Your task to perform on an android device: change notifications settings Image 0: 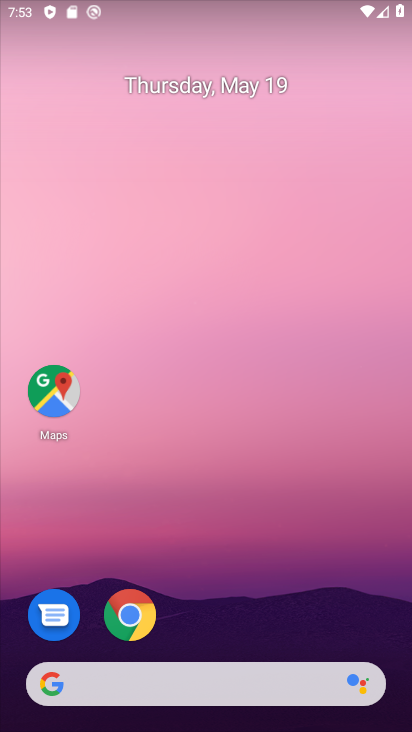
Step 0: drag from (268, 616) to (209, 134)
Your task to perform on an android device: change notifications settings Image 1: 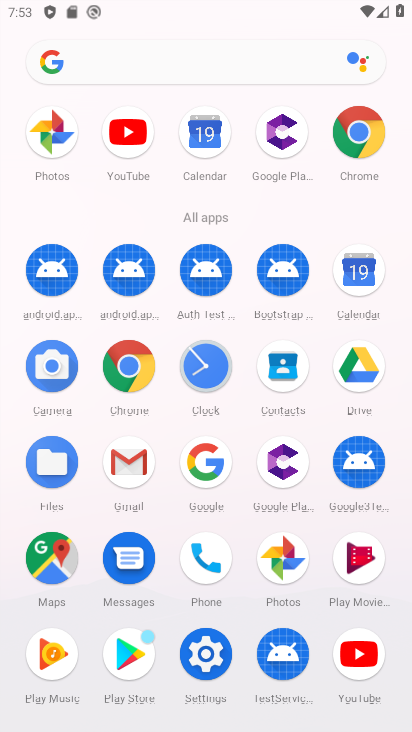
Step 1: click (212, 660)
Your task to perform on an android device: change notifications settings Image 2: 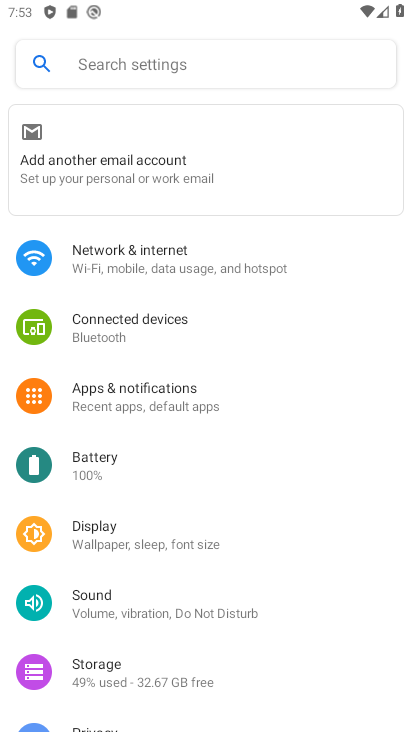
Step 2: click (159, 404)
Your task to perform on an android device: change notifications settings Image 3: 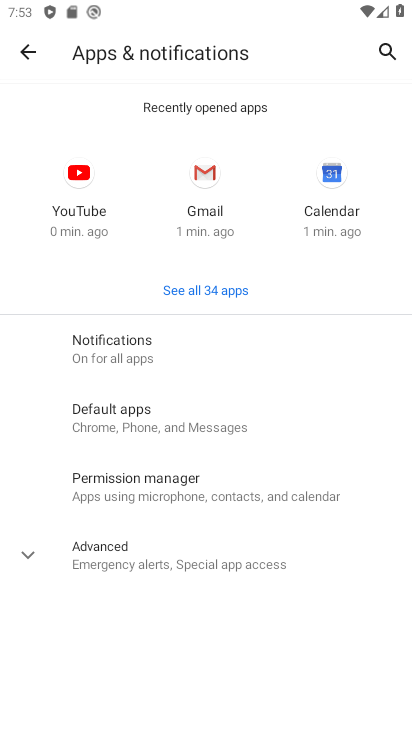
Step 3: click (117, 349)
Your task to perform on an android device: change notifications settings Image 4: 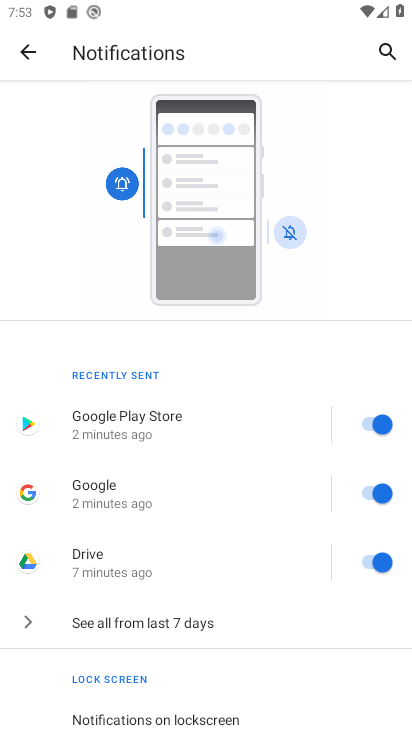
Step 4: drag from (97, 580) to (121, 158)
Your task to perform on an android device: change notifications settings Image 5: 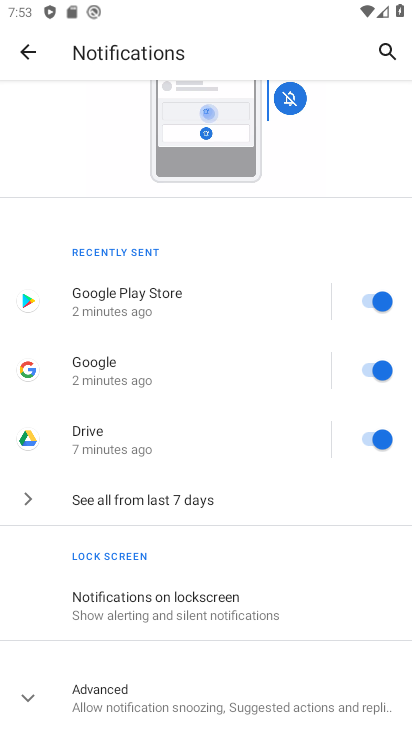
Step 5: drag from (196, 643) to (243, 204)
Your task to perform on an android device: change notifications settings Image 6: 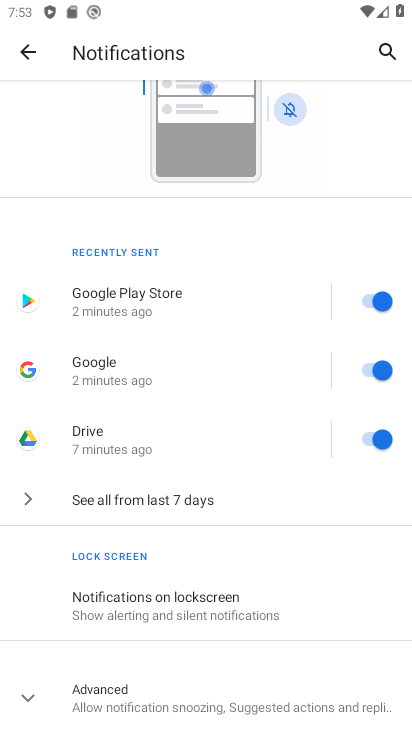
Step 6: click (151, 696)
Your task to perform on an android device: change notifications settings Image 7: 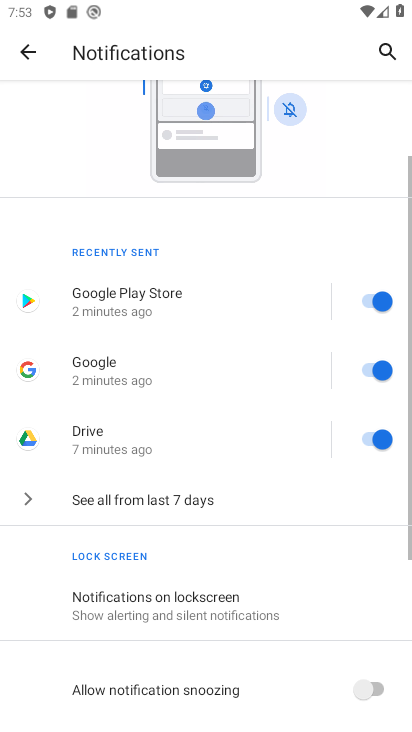
Step 7: drag from (151, 695) to (149, 309)
Your task to perform on an android device: change notifications settings Image 8: 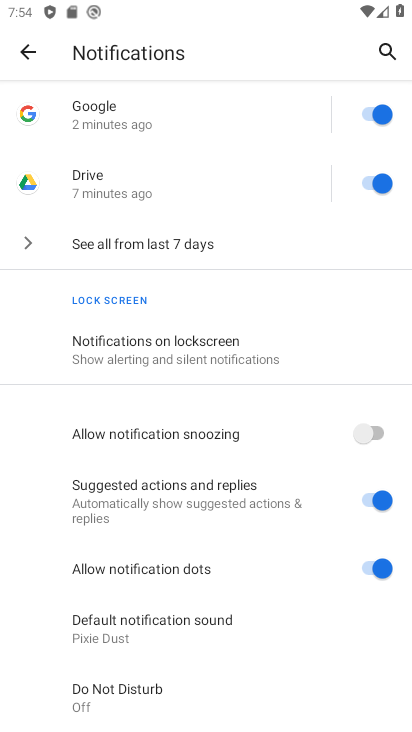
Step 8: drag from (177, 333) to (210, 675)
Your task to perform on an android device: change notifications settings Image 9: 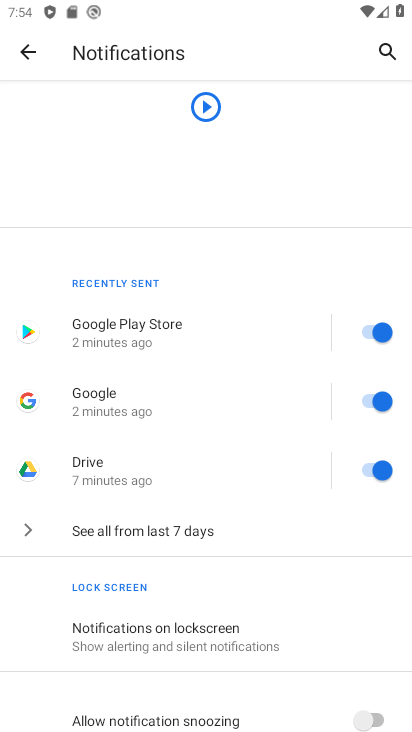
Step 9: click (378, 338)
Your task to perform on an android device: change notifications settings Image 10: 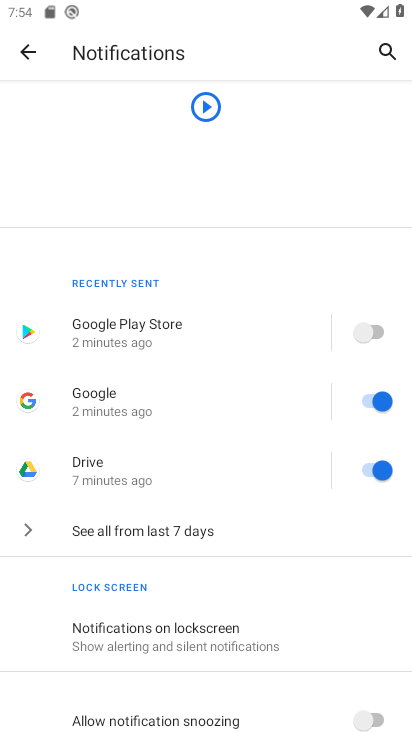
Step 10: task complete